Your task to perform on an android device: open a new tab in the chrome app Image 0: 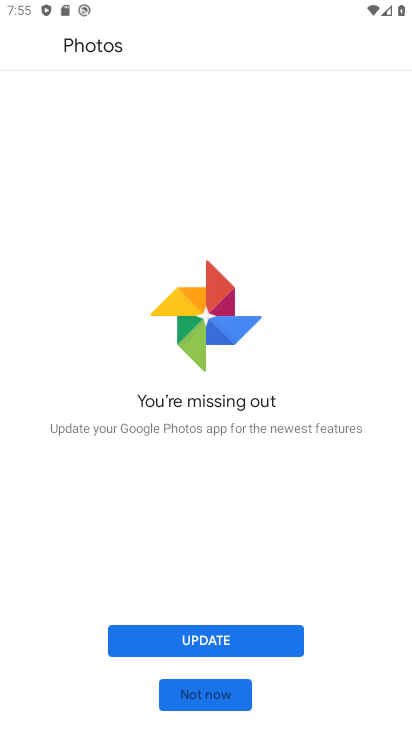
Step 0: press home button
Your task to perform on an android device: open a new tab in the chrome app Image 1: 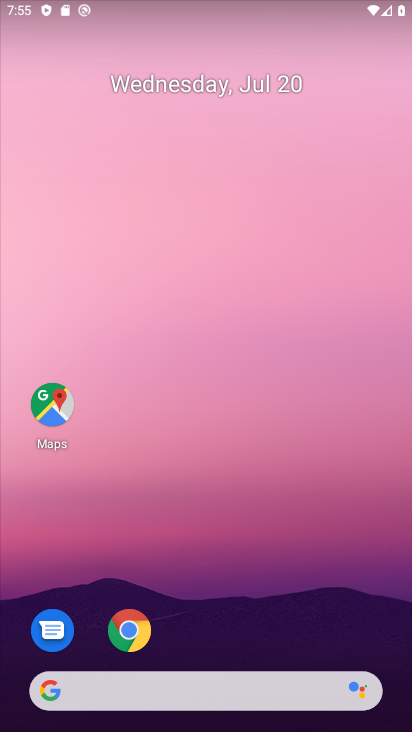
Step 1: click (126, 623)
Your task to perform on an android device: open a new tab in the chrome app Image 2: 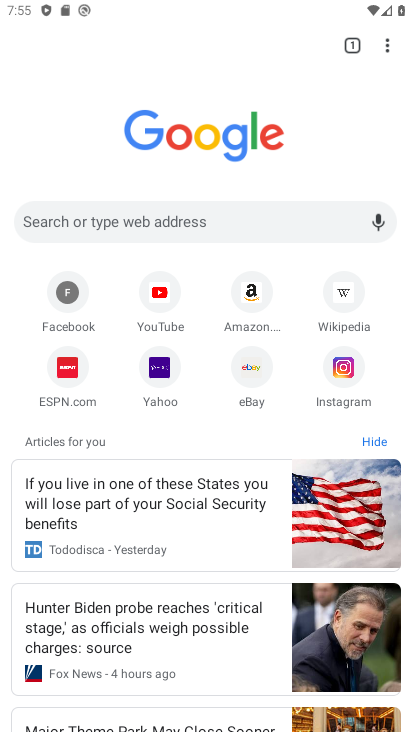
Step 2: click (385, 42)
Your task to perform on an android device: open a new tab in the chrome app Image 3: 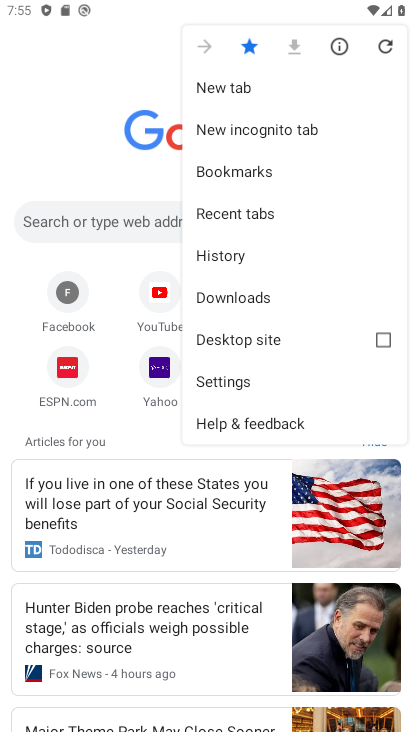
Step 3: click (226, 86)
Your task to perform on an android device: open a new tab in the chrome app Image 4: 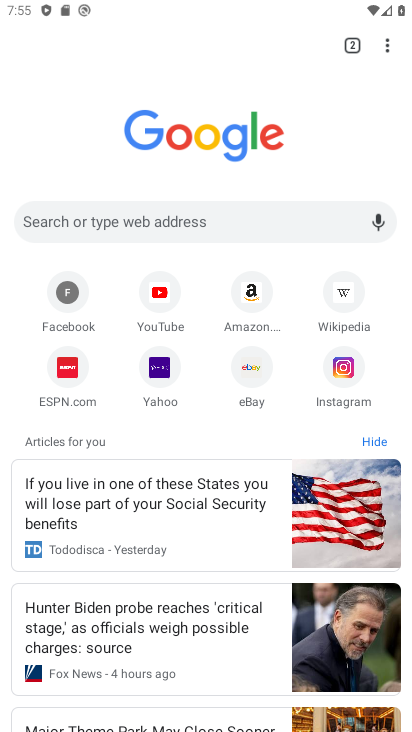
Step 4: task complete